Your task to perform on an android device: create a new album in the google photos Image 0: 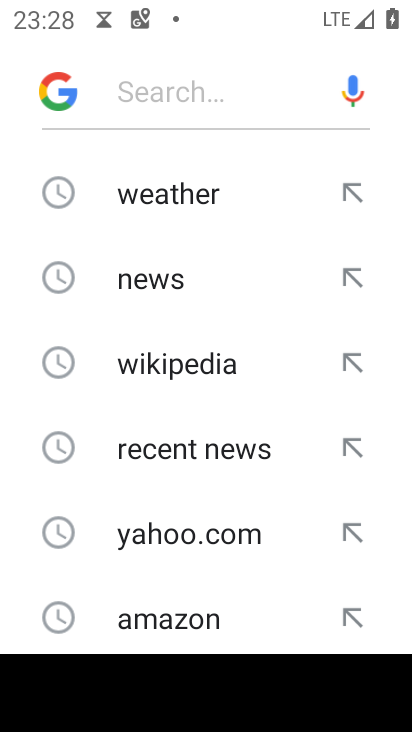
Step 0: press back button
Your task to perform on an android device: create a new album in the google photos Image 1: 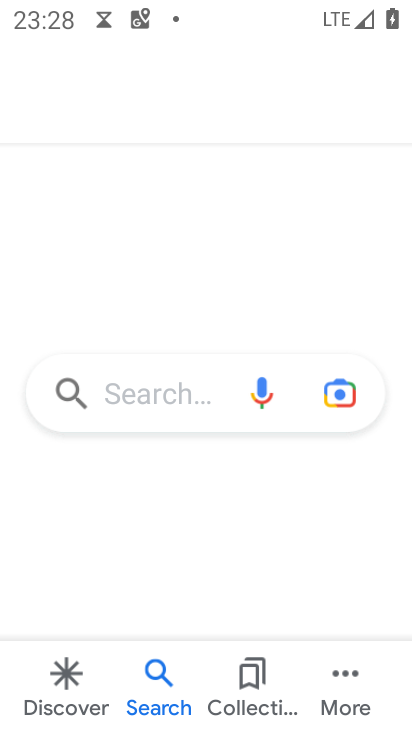
Step 1: press back button
Your task to perform on an android device: create a new album in the google photos Image 2: 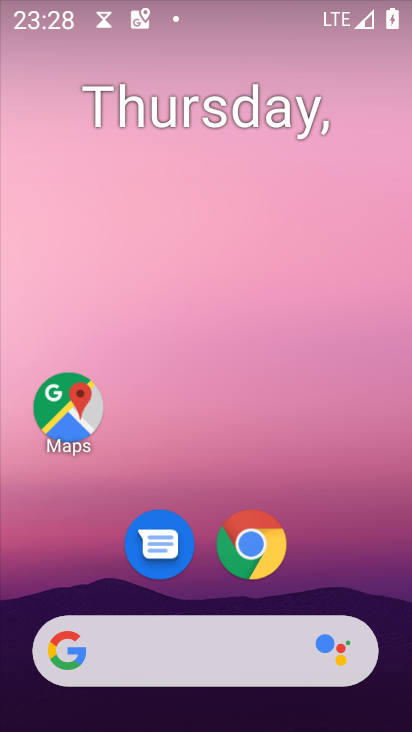
Step 2: drag from (336, 564) to (188, 192)
Your task to perform on an android device: create a new album in the google photos Image 3: 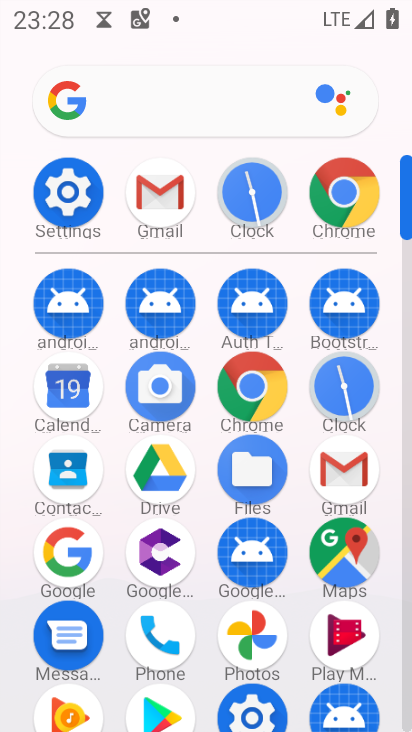
Step 3: click (252, 621)
Your task to perform on an android device: create a new album in the google photos Image 4: 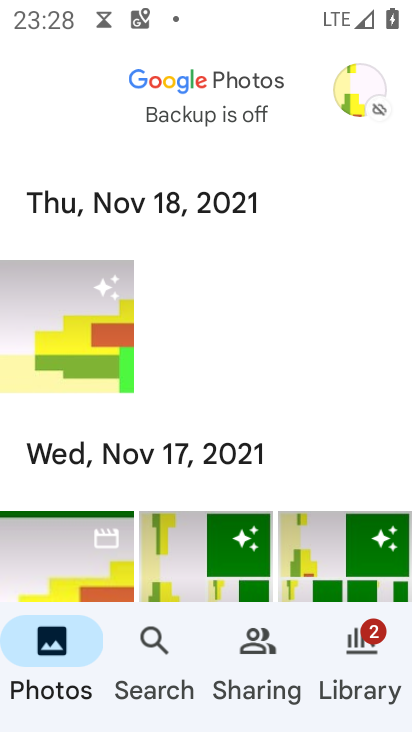
Step 4: click (343, 660)
Your task to perform on an android device: create a new album in the google photos Image 5: 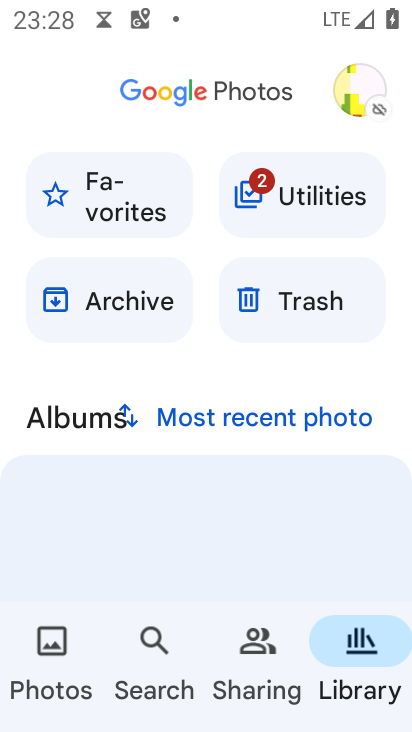
Step 5: click (218, 567)
Your task to perform on an android device: create a new album in the google photos Image 6: 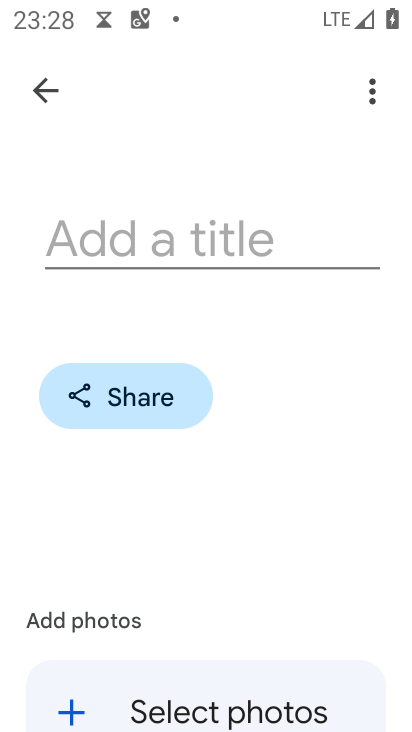
Step 6: drag from (180, 602) to (206, 332)
Your task to perform on an android device: create a new album in the google photos Image 7: 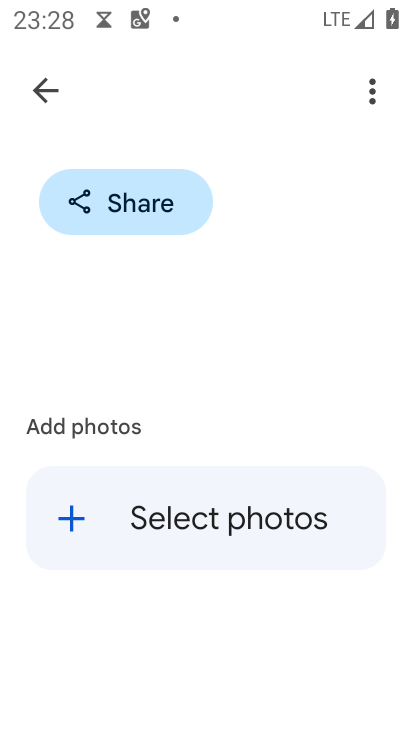
Step 7: click (196, 500)
Your task to perform on an android device: create a new album in the google photos Image 8: 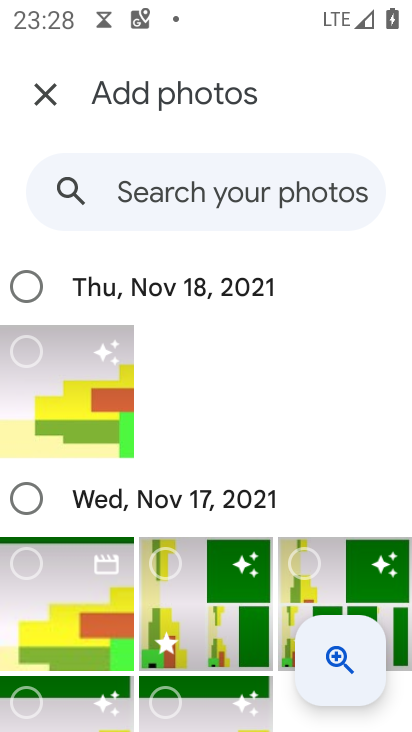
Step 8: click (37, 285)
Your task to perform on an android device: create a new album in the google photos Image 9: 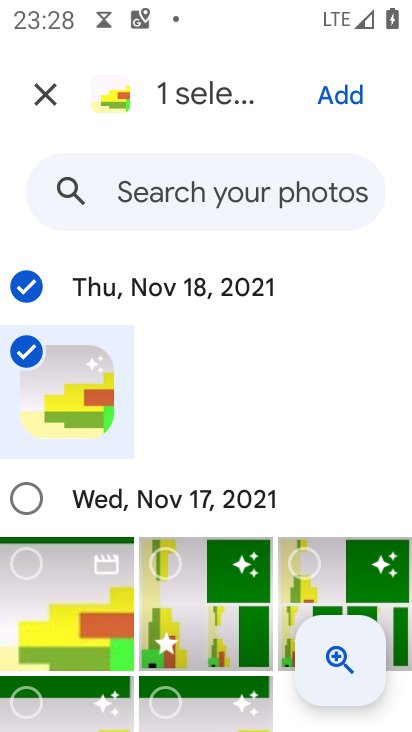
Step 9: click (28, 505)
Your task to perform on an android device: create a new album in the google photos Image 10: 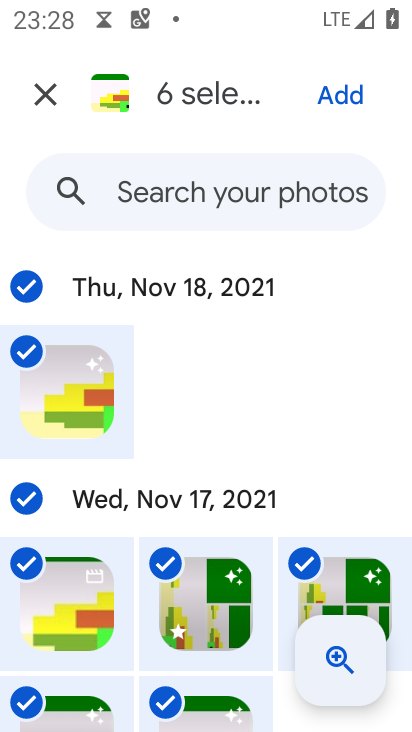
Step 10: click (344, 106)
Your task to perform on an android device: create a new album in the google photos Image 11: 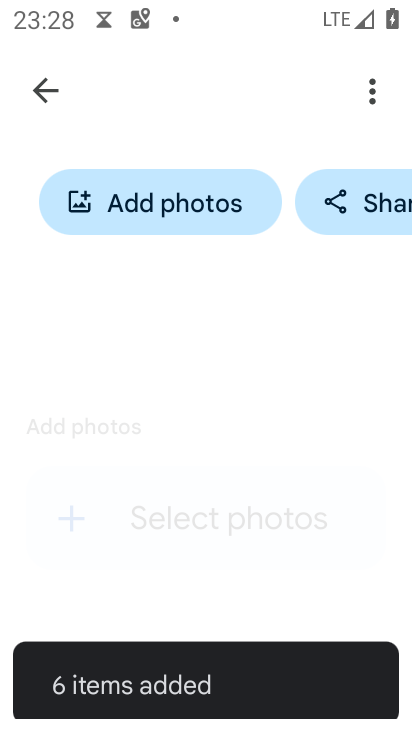
Step 11: drag from (232, 215) to (195, 511)
Your task to perform on an android device: create a new album in the google photos Image 12: 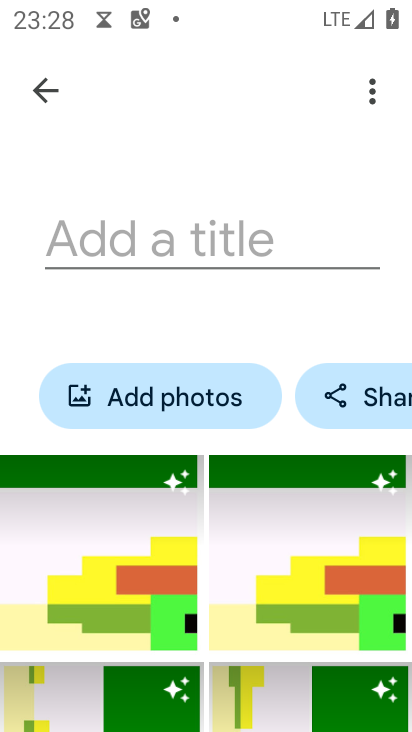
Step 12: click (181, 252)
Your task to perform on an android device: create a new album in the google photos Image 13: 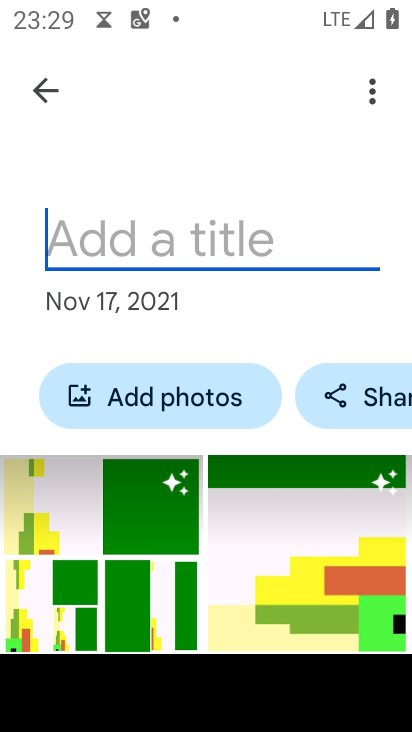
Step 13: type "gole"
Your task to perform on an android device: create a new album in the google photos Image 14: 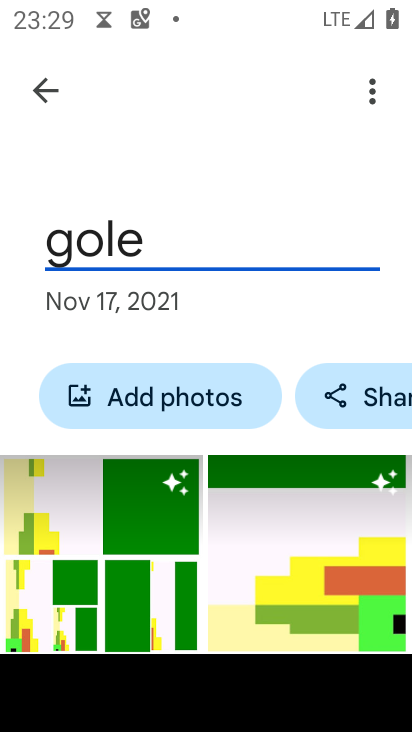
Step 14: click (347, 385)
Your task to perform on an android device: create a new album in the google photos Image 15: 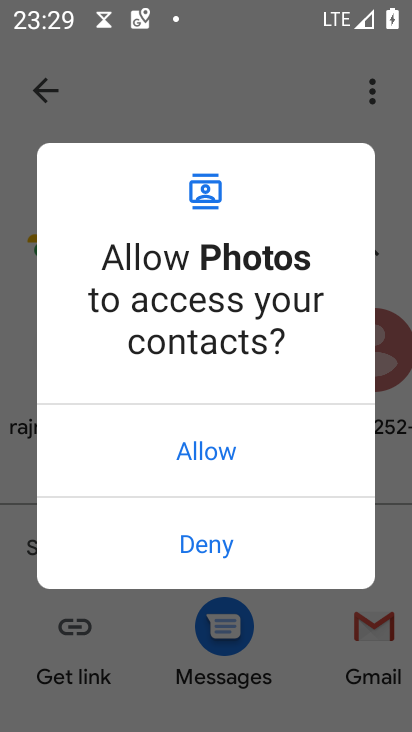
Step 15: press back button
Your task to perform on an android device: create a new album in the google photos Image 16: 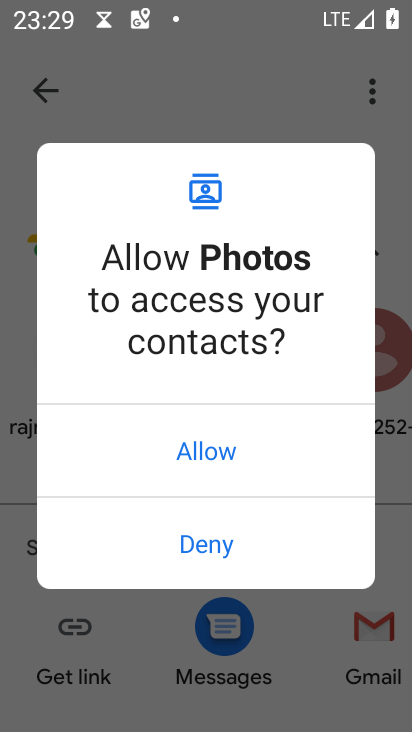
Step 16: click (217, 524)
Your task to perform on an android device: create a new album in the google photos Image 17: 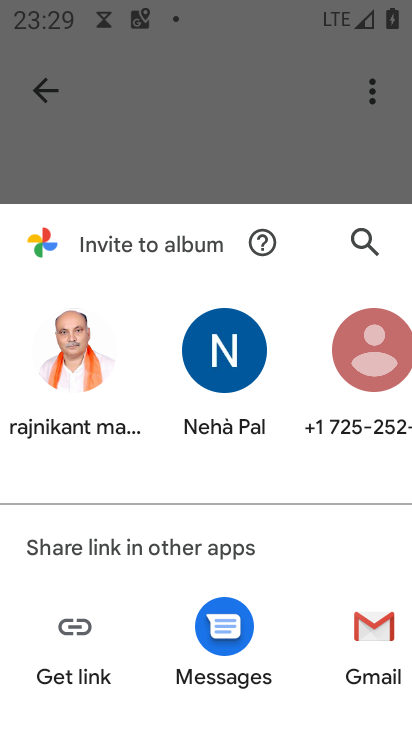
Step 17: click (321, 169)
Your task to perform on an android device: create a new album in the google photos Image 18: 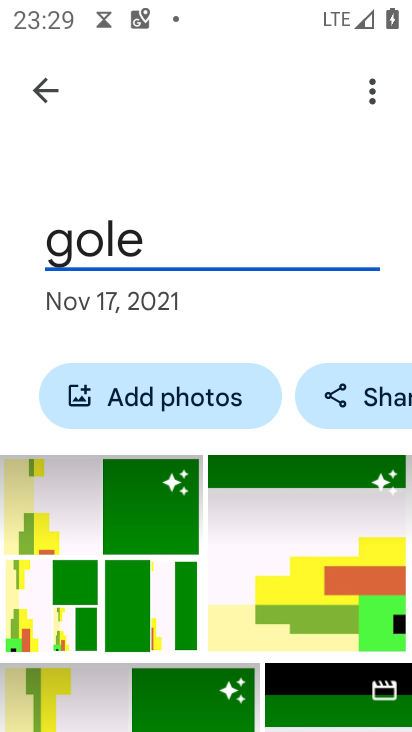
Step 18: click (369, 87)
Your task to perform on an android device: create a new album in the google photos Image 19: 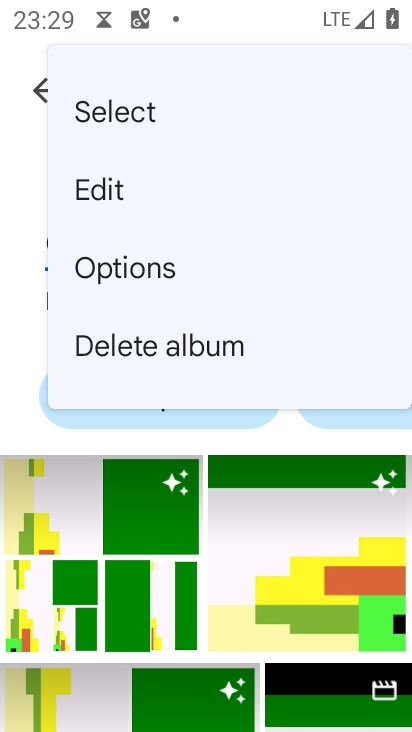
Step 19: click (111, 549)
Your task to perform on an android device: create a new album in the google photos Image 20: 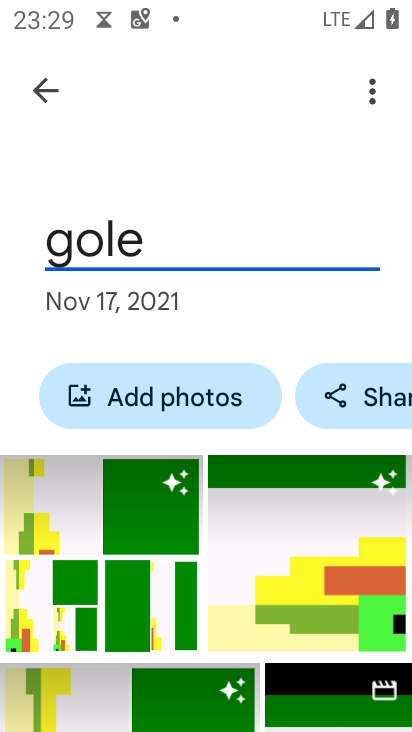
Step 20: drag from (177, 506) to (206, 188)
Your task to perform on an android device: create a new album in the google photos Image 21: 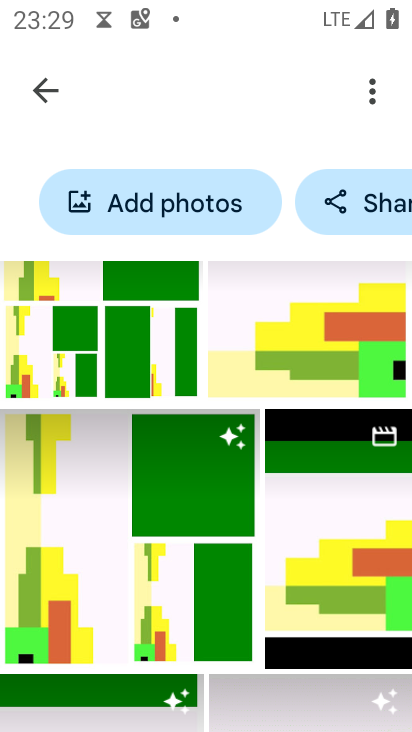
Step 21: click (306, 602)
Your task to perform on an android device: create a new album in the google photos Image 22: 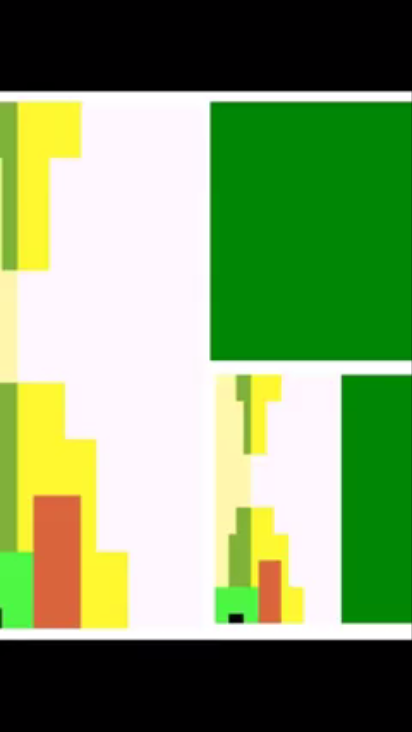
Step 22: task complete